Your task to perform on an android device: Open ESPN.com Image 0: 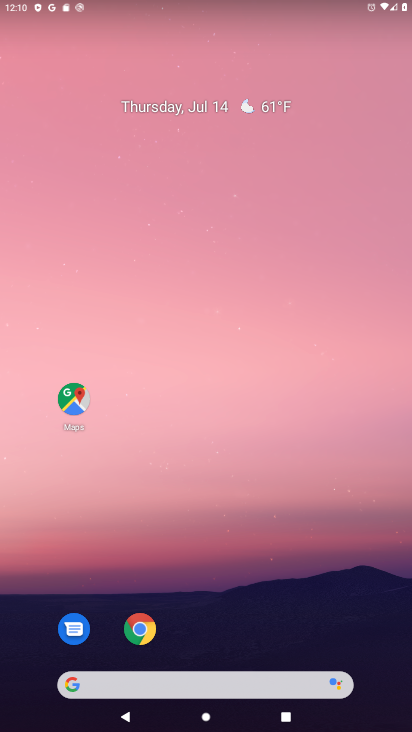
Step 0: click (141, 631)
Your task to perform on an android device: Open ESPN.com Image 1: 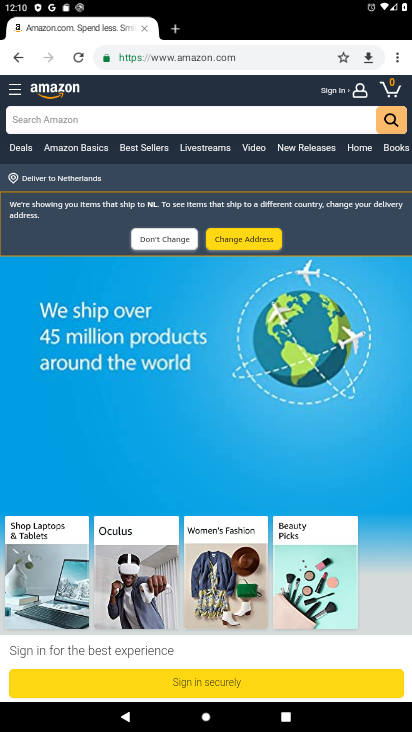
Step 1: click (278, 59)
Your task to perform on an android device: Open ESPN.com Image 2: 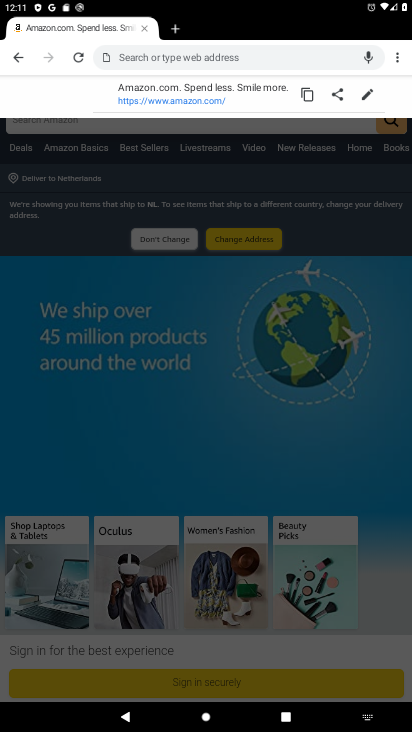
Step 2: type "ESPN.com"
Your task to perform on an android device: Open ESPN.com Image 3: 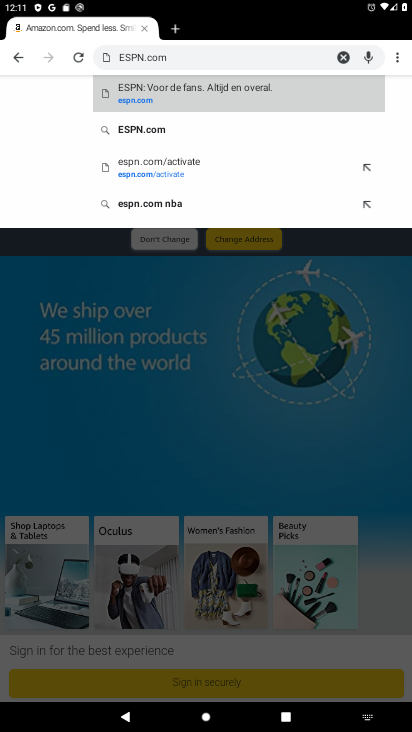
Step 3: click (148, 132)
Your task to perform on an android device: Open ESPN.com Image 4: 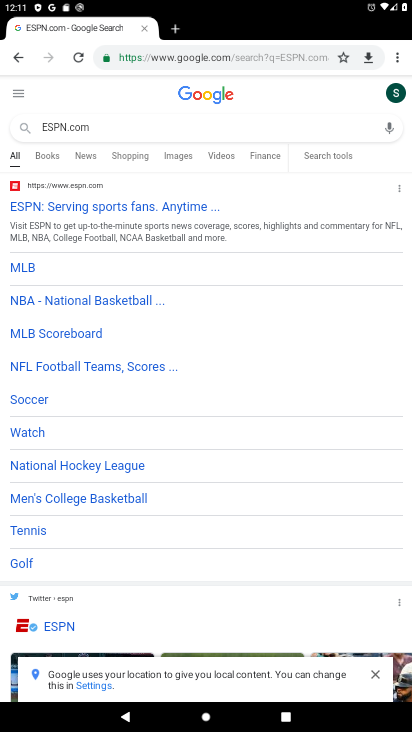
Step 4: click (192, 209)
Your task to perform on an android device: Open ESPN.com Image 5: 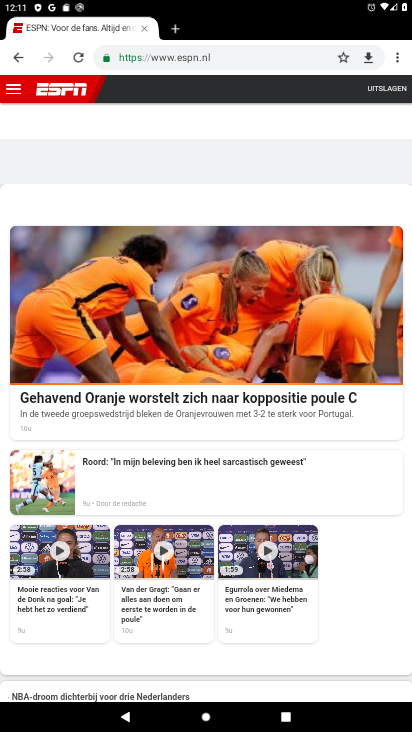
Step 5: task complete